Your task to perform on an android device: Go to CNN.com Image 0: 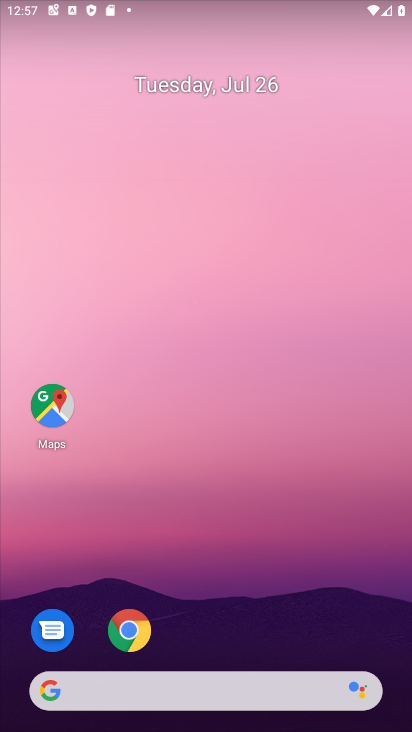
Step 0: click (129, 630)
Your task to perform on an android device: Go to CNN.com Image 1: 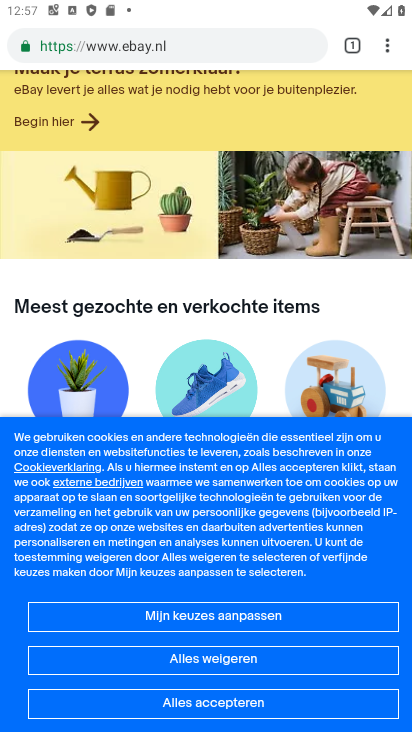
Step 1: click (209, 41)
Your task to perform on an android device: Go to CNN.com Image 2: 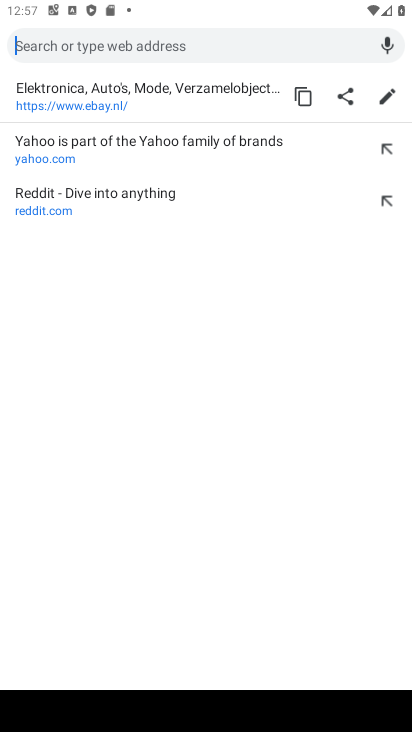
Step 2: type "CNN.com"
Your task to perform on an android device: Go to CNN.com Image 3: 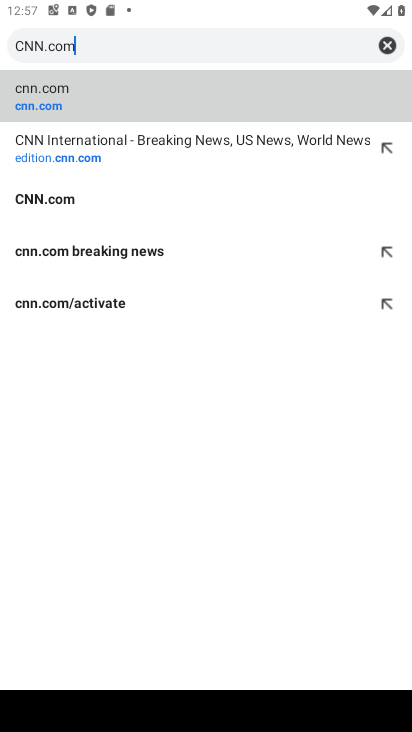
Step 3: click (38, 96)
Your task to perform on an android device: Go to CNN.com Image 4: 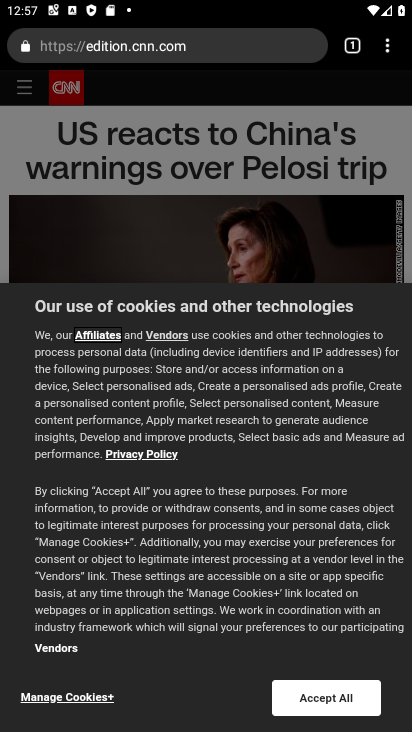
Step 4: click (332, 697)
Your task to perform on an android device: Go to CNN.com Image 5: 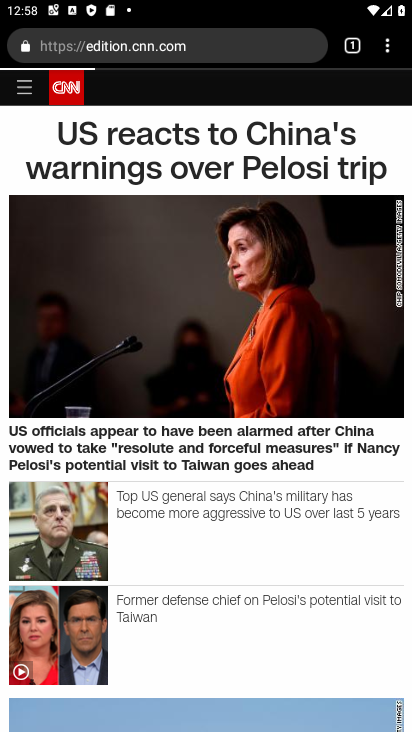
Step 5: task complete